Your task to perform on an android device: What's the weather today? Image 0: 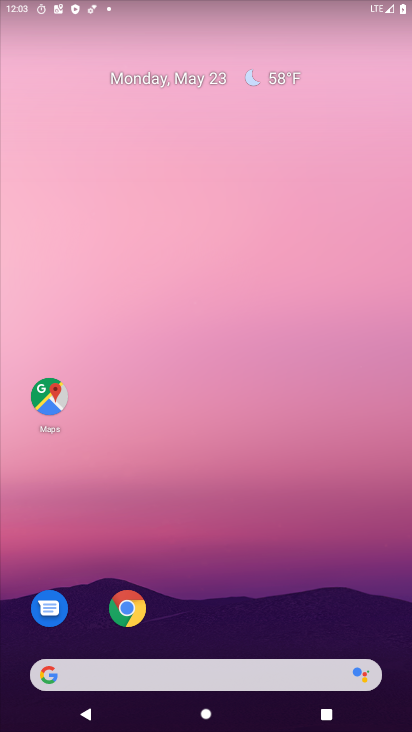
Step 0: drag from (206, 618) to (164, 164)
Your task to perform on an android device: What's the weather today? Image 1: 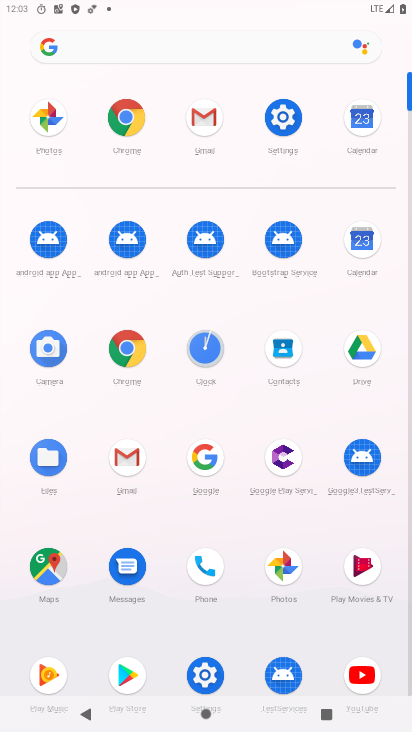
Step 1: click (137, 127)
Your task to perform on an android device: What's the weather today? Image 2: 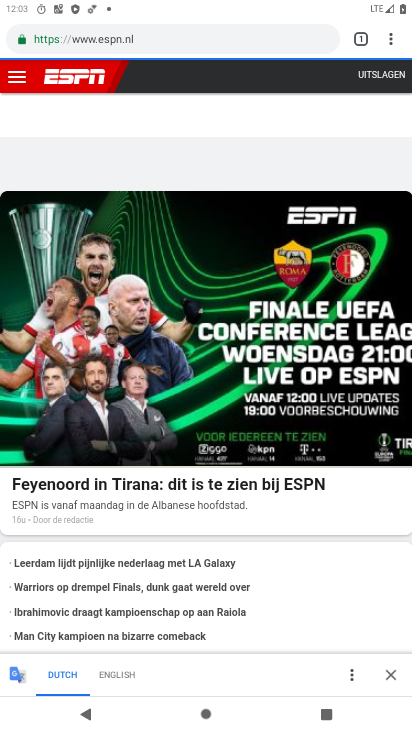
Step 2: click (180, 38)
Your task to perform on an android device: What's the weather today? Image 3: 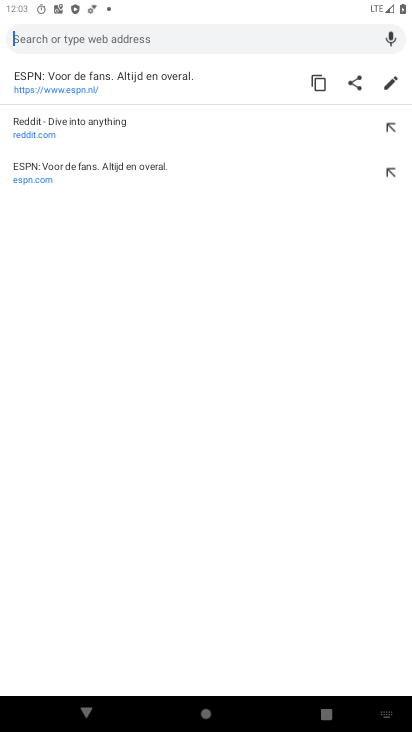
Step 3: click (180, 38)
Your task to perform on an android device: What's the weather today? Image 4: 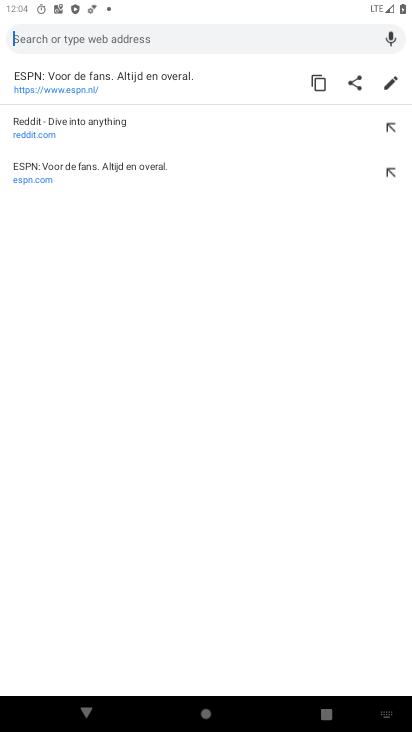
Step 4: type "weather today"
Your task to perform on an android device: What's the weather today? Image 5: 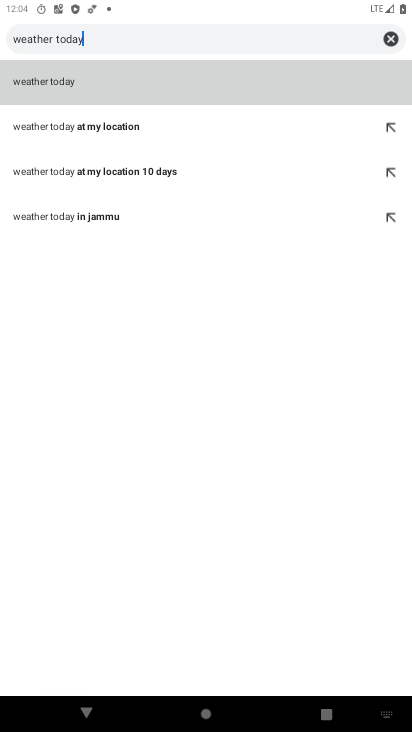
Step 5: click (46, 81)
Your task to perform on an android device: What's the weather today? Image 6: 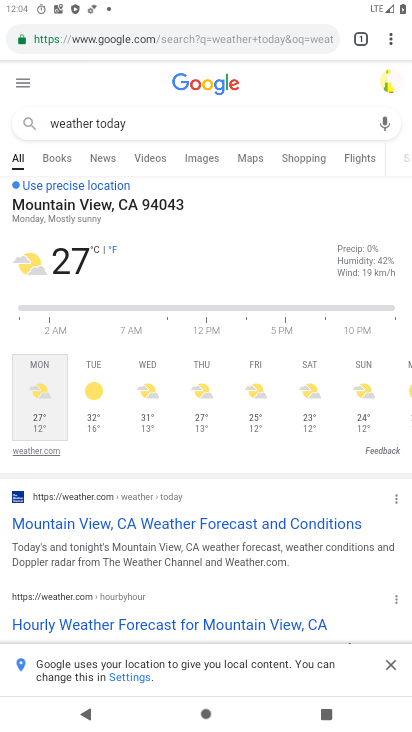
Step 6: task complete